Your task to perform on an android device: Toggle the flashlight Image 0: 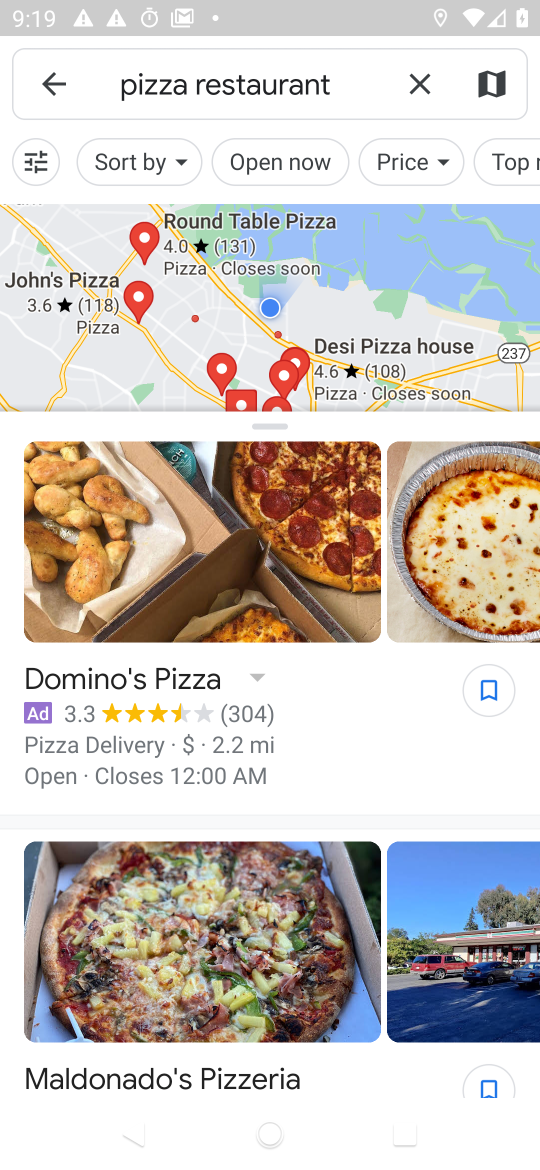
Step 0: press back button
Your task to perform on an android device: Toggle the flashlight Image 1: 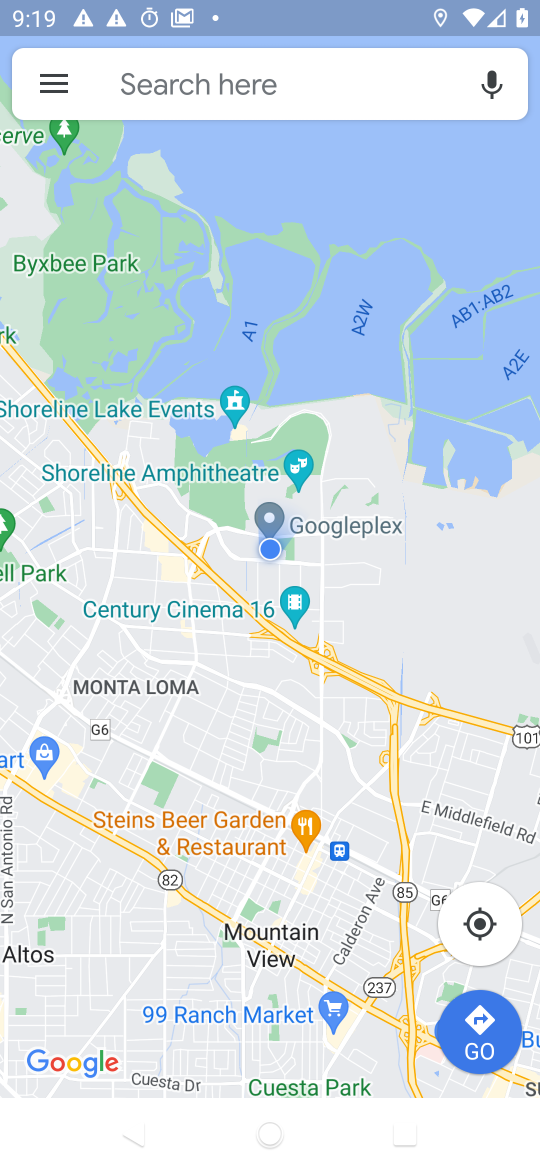
Step 1: press back button
Your task to perform on an android device: Toggle the flashlight Image 2: 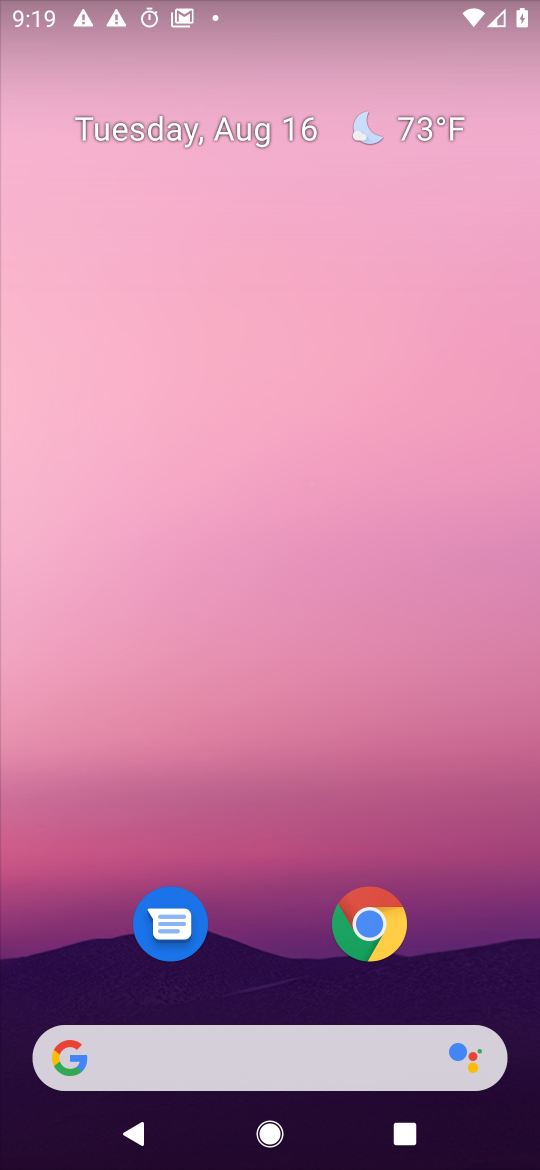
Step 2: drag from (244, 973) to (365, 1)
Your task to perform on an android device: Toggle the flashlight Image 3: 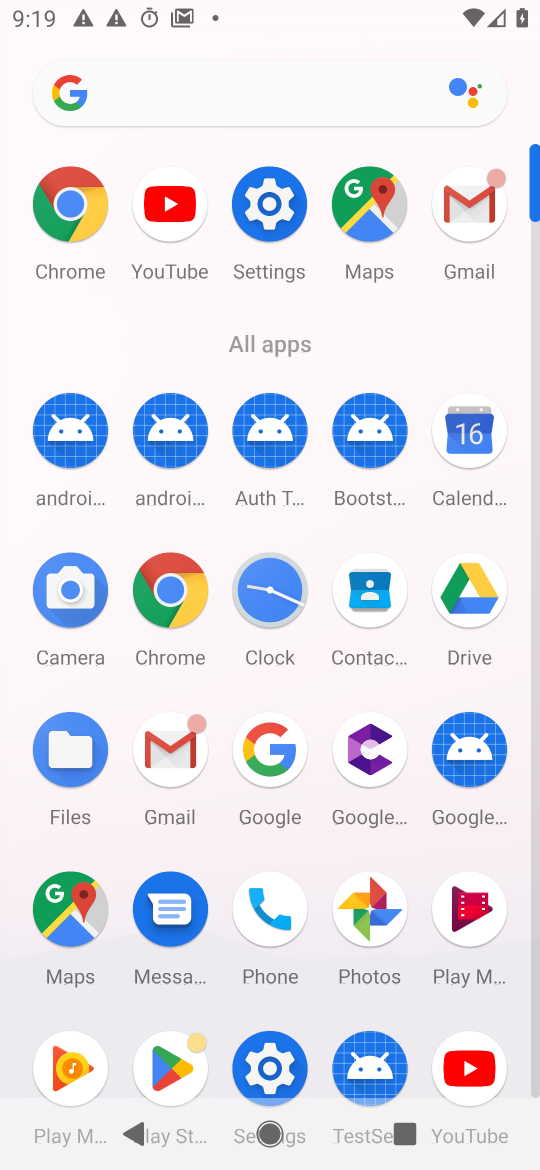
Step 3: click (274, 201)
Your task to perform on an android device: Toggle the flashlight Image 4: 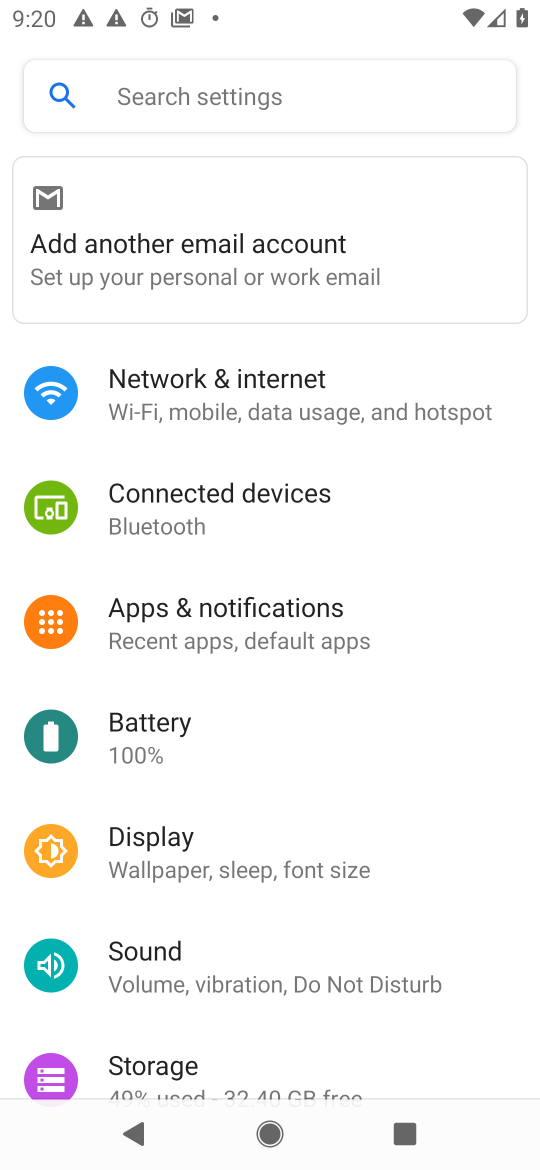
Step 4: click (199, 85)
Your task to perform on an android device: Toggle the flashlight Image 5: 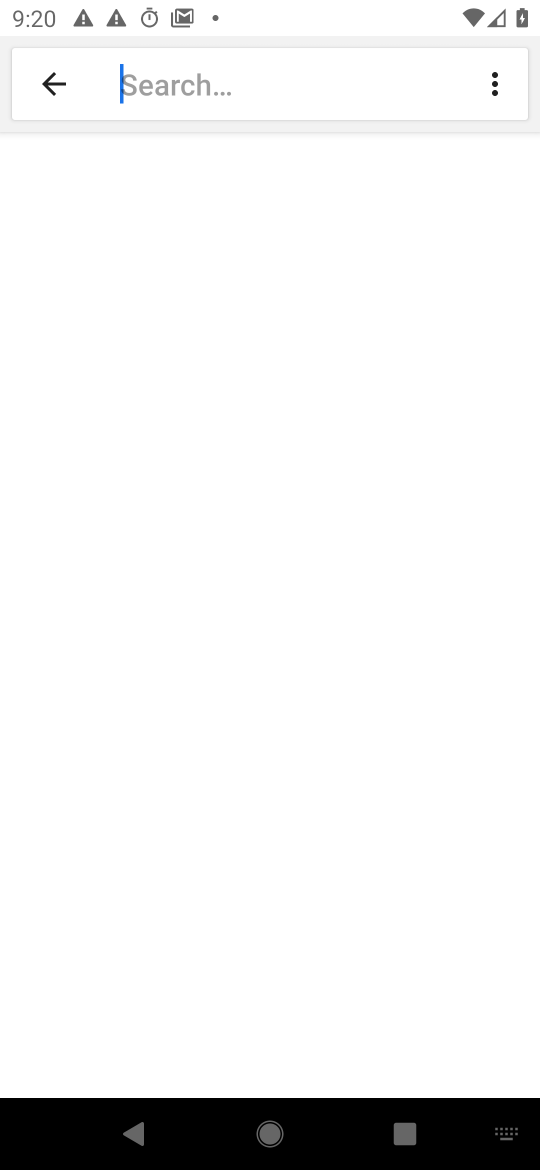
Step 5: type "flashlight"
Your task to perform on an android device: Toggle the flashlight Image 6: 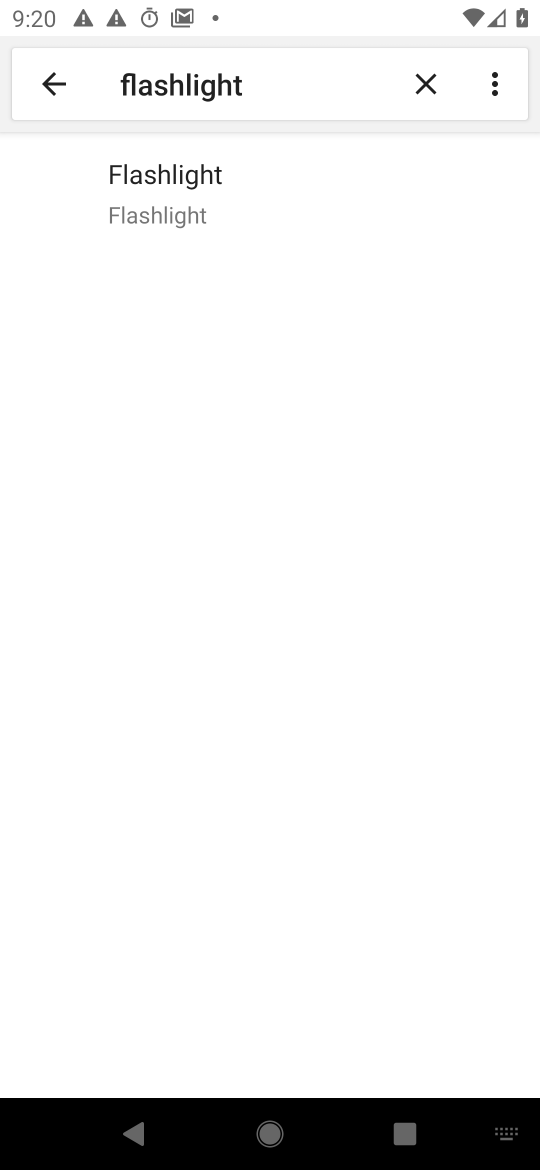
Step 6: click (223, 201)
Your task to perform on an android device: Toggle the flashlight Image 7: 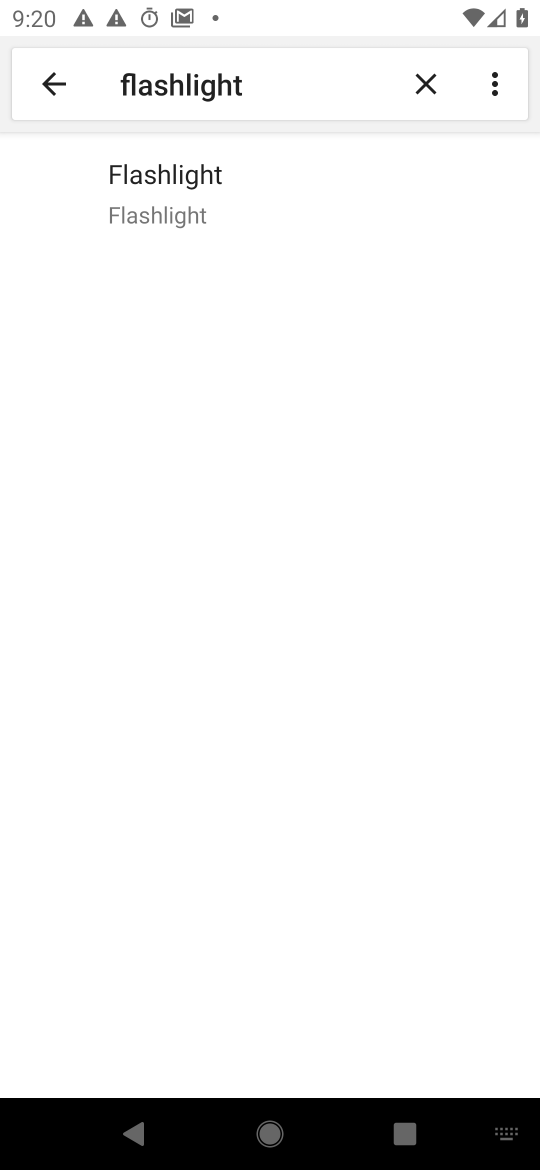
Step 7: click (161, 230)
Your task to perform on an android device: Toggle the flashlight Image 8: 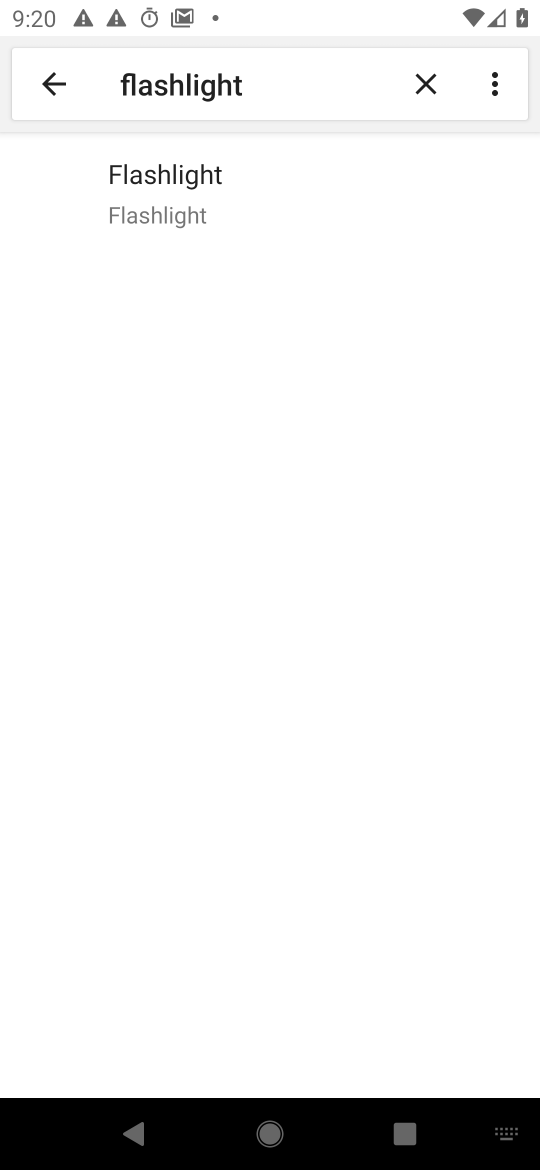
Step 8: task complete